Your task to perform on an android device: turn on showing notifications on the lock screen Image 0: 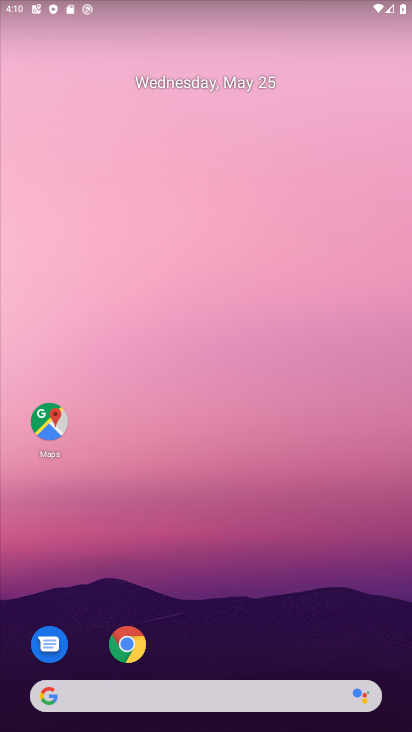
Step 0: drag from (302, 656) to (344, 4)
Your task to perform on an android device: turn on showing notifications on the lock screen Image 1: 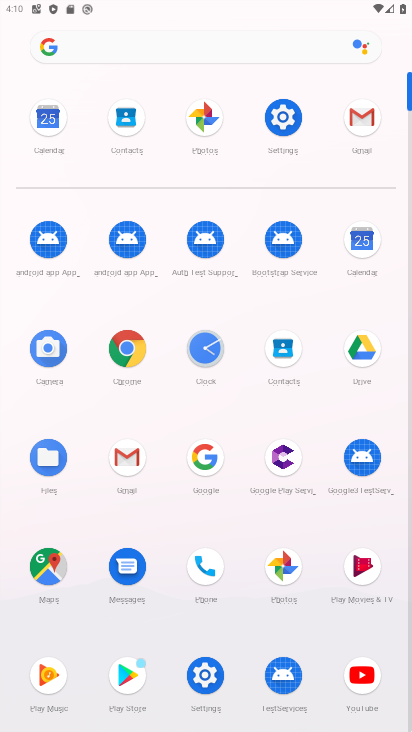
Step 1: click (283, 121)
Your task to perform on an android device: turn on showing notifications on the lock screen Image 2: 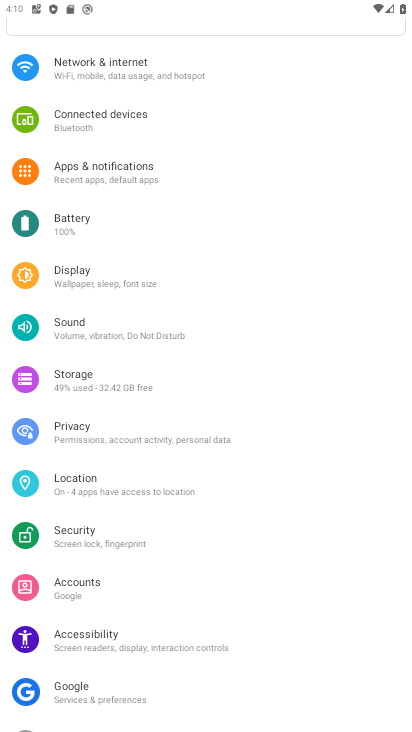
Step 2: click (100, 171)
Your task to perform on an android device: turn on showing notifications on the lock screen Image 3: 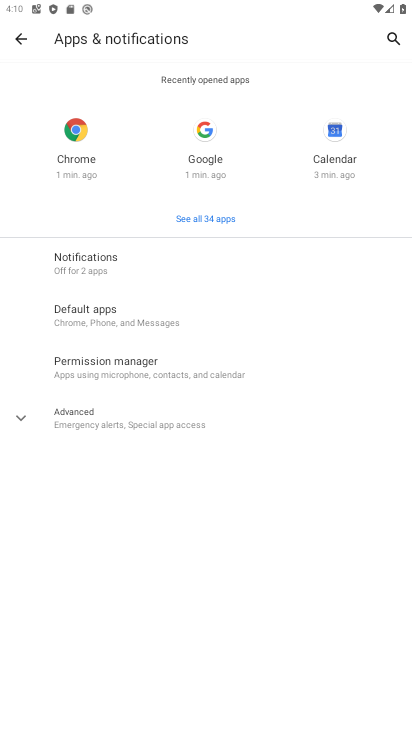
Step 3: click (90, 257)
Your task to perform on an android device: turn on showing notifications on the lock screen Image 4: 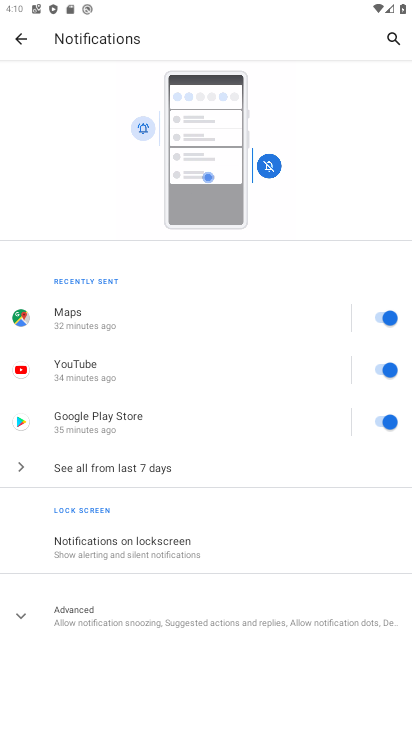
Step 4: click (88, 548)
Your task to perform on an android device: turn on showing notifications on the lock screen Image 5: 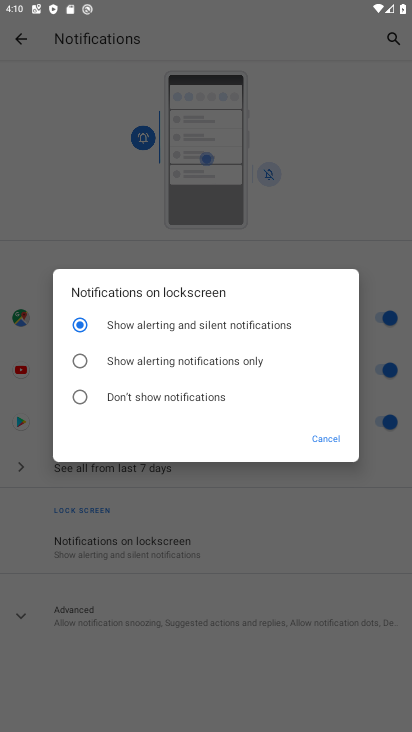
Step 5: task complete